Your task to perform on an android device: search for starred emails in the gmail app Image 0: 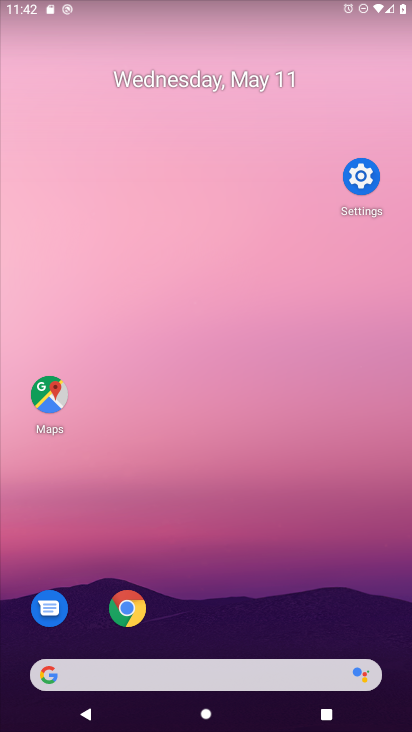
Step 0: drag from (0, 0) to (159, 0)
Your task to perform on an android device: search for starred emails in the gmail app Image 1: 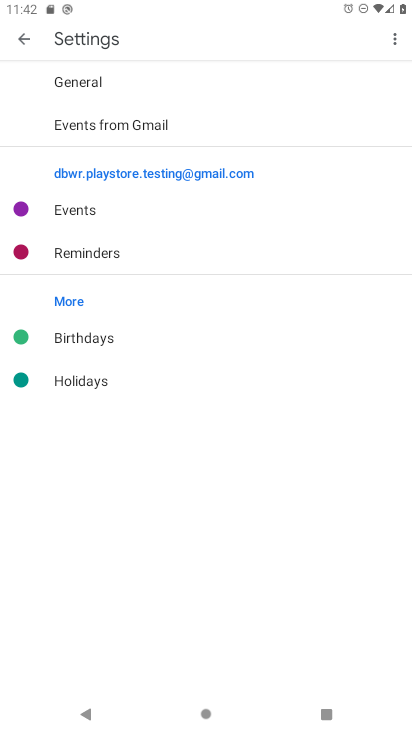
Step 1: press home button
Your task to perform on an android device: search for starred emails in the gmail app Image 2: 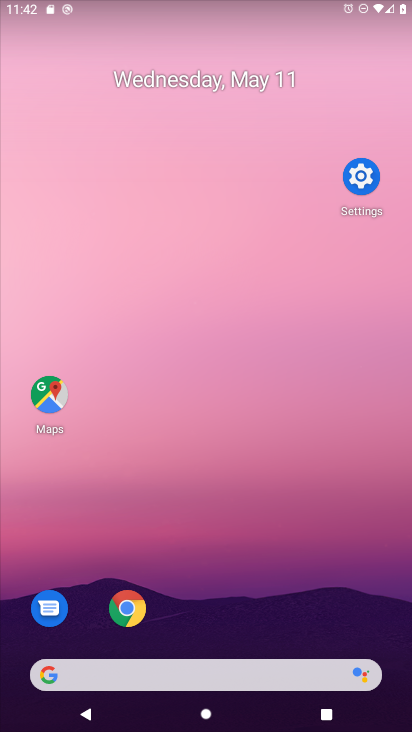
Step 2: drag from (250, 543) to (134, 96)
Your task to perform on an android device: search for starred emails in the gmail app Image 3: 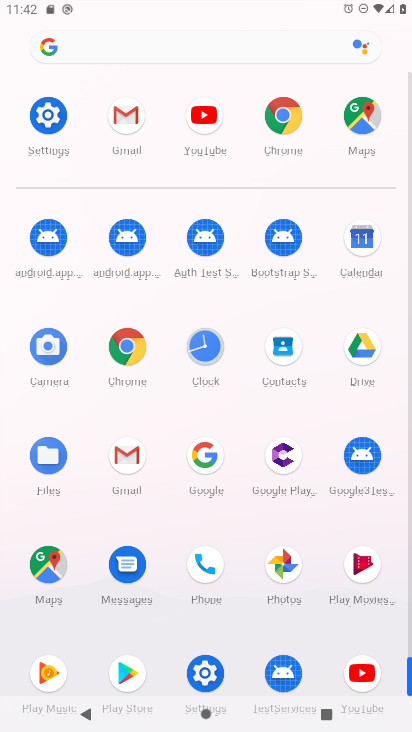
Step 3: click (128, 455)
Your task to perform on an android device: search for starred emails in the gmail app Image 4: 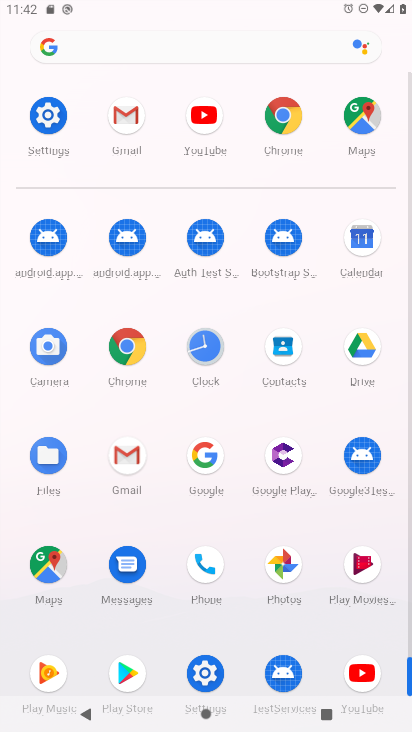
Step 4: click (127, 454)
Your task to perform on an android device: search for starred emails in the gmail app Image 5: 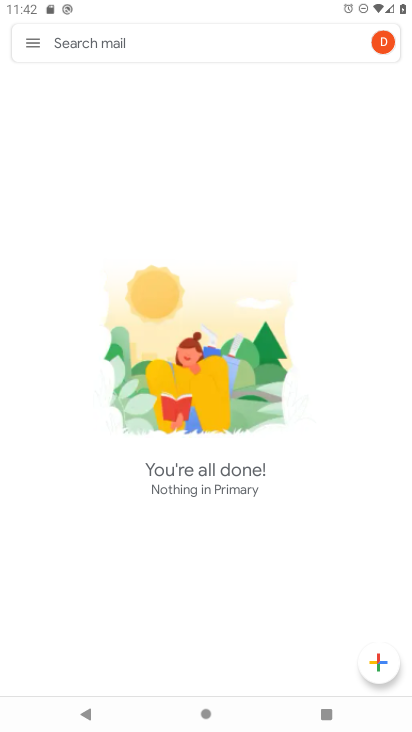
Step 5: click (32, 45)
Your task to perform on an android device: search for starred emails in the gmail app Image 6: 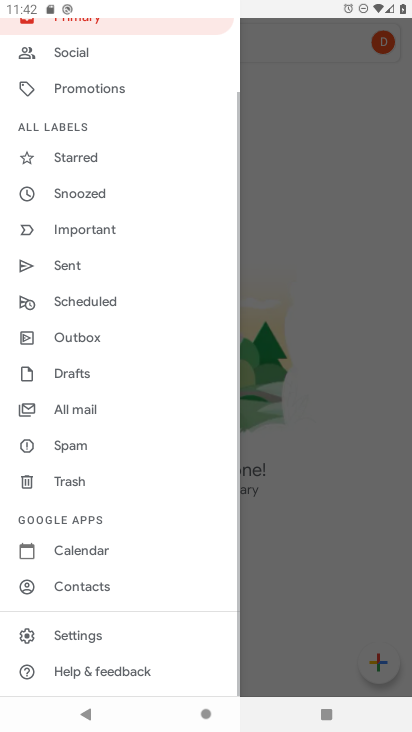
Step 6: click (77, 159)
Your task to perform on an android device: search for starred emails in the gmail app Image 7: 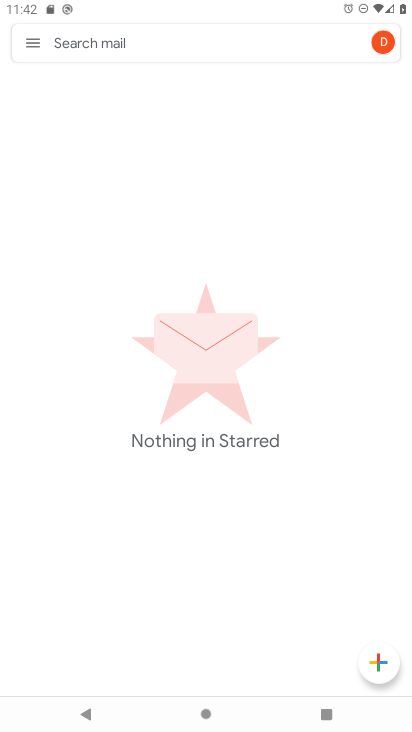
Step 7: task complete